Your task to perform on an android device: Open calendar and show me the second week of next month Image 0: 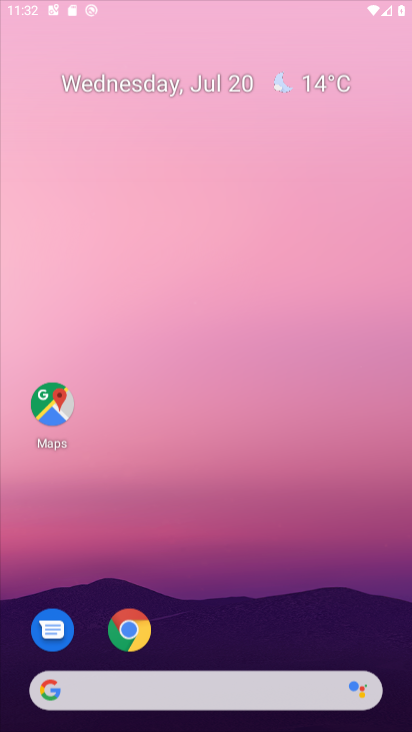
Step 0: press home button
Your task to perform on an android device: Open calendar and show me the second week of next month Image 1: 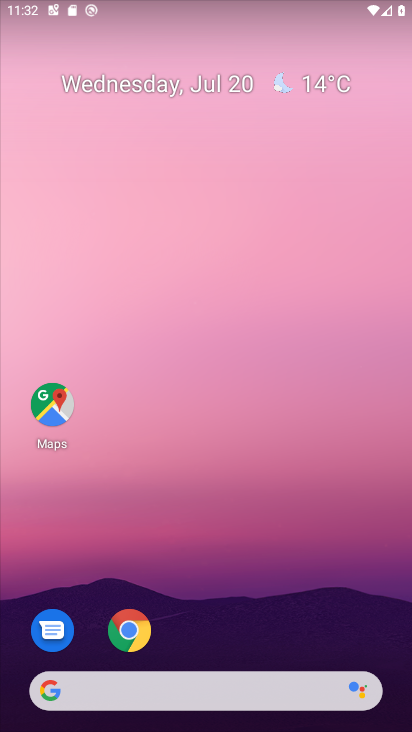
Step 1: drag from (230, 670) to (84, 1)
Your task to perform on an android device: Open calendar and show me the second week of next month Image 2: 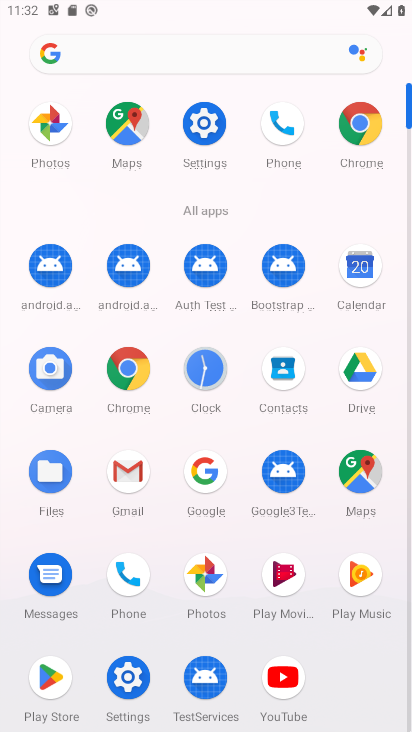
Step 2: click (371, 269)
Your task to perform on an android device: Open calendar and show me the second week of next month Image 3: 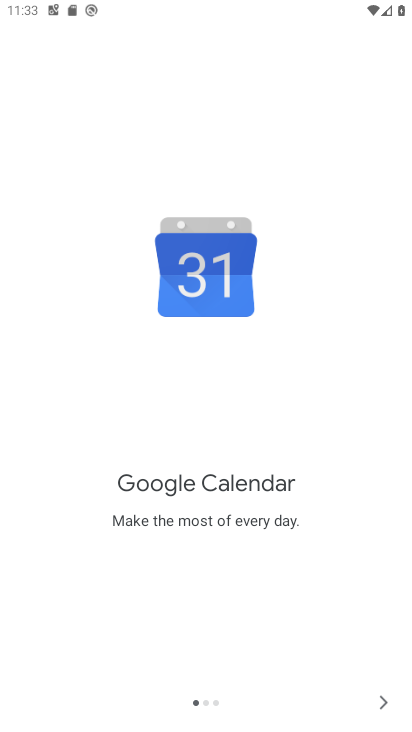
Step 3: click (388, 704)
Your task to perform on an android device: Open calendar and show me the second week of next month Image 4: 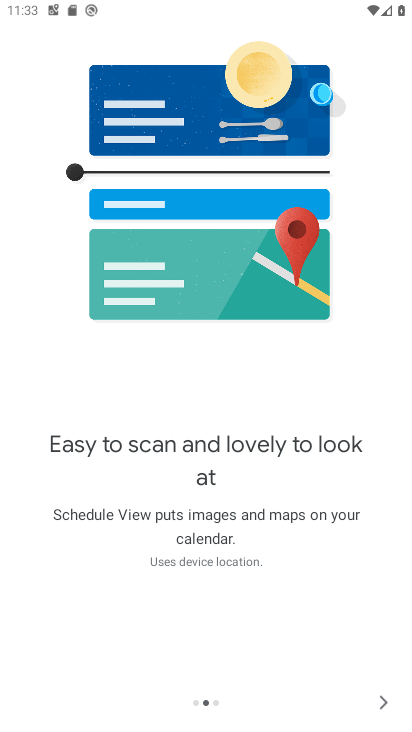
Step 4: click (388, 704)
Your task to perform on an android device: Open calendar and show me the second week of next month Image 5: 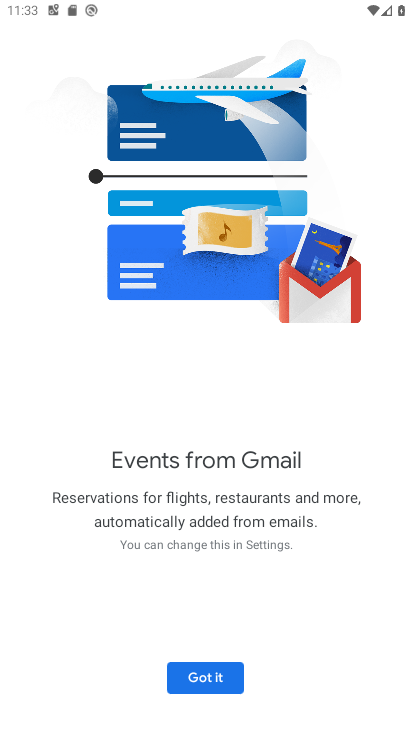
Step 5: click (221, 674)
Your task to perform on an android device: Open calendar and show me the second week of next month Image 6: 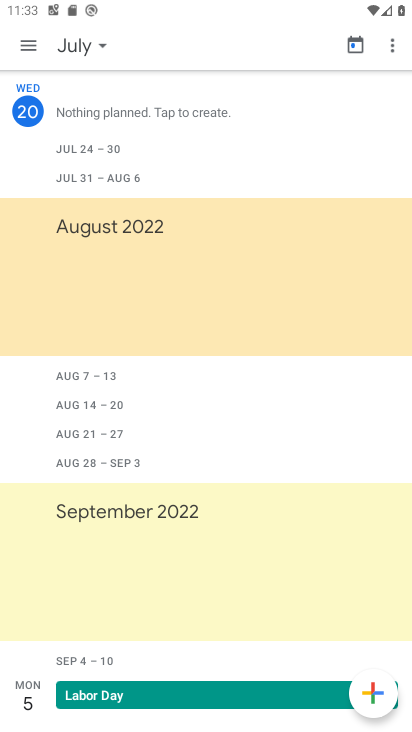
Step 6: click (31, 43)
Your task to perform on an android device: Open calendar and show me the second week of next month Image 7: 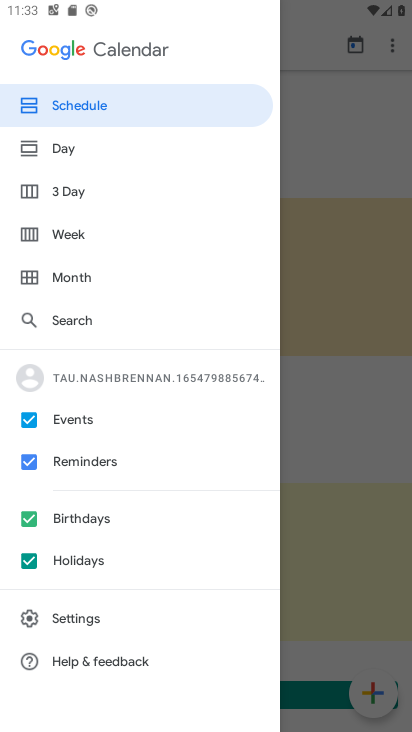
Step 7: click (43, 225)
Your task to perform on an android device: Open calendar and show me the second week of next month Image 8: 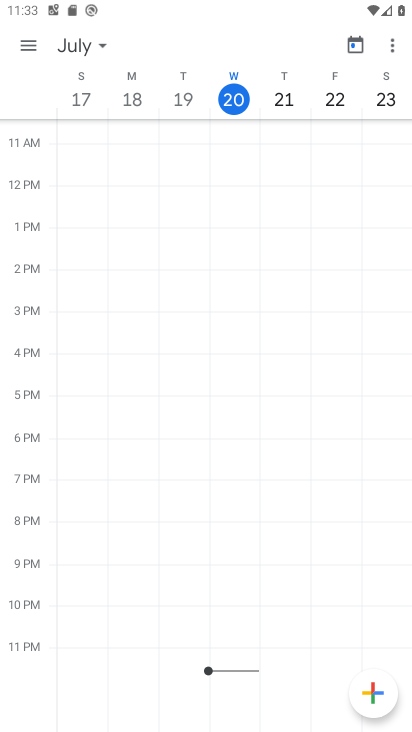
Step 8: task complete